Your task to perform on an android device: Open Chrome and go to settings Image 0: 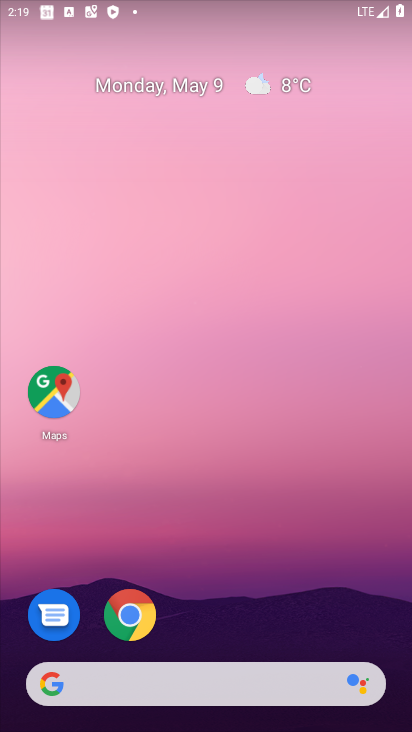
Step 0: click (126, 610)
Your task to perform on an android device: Open Chrome and go to settings Image 1: 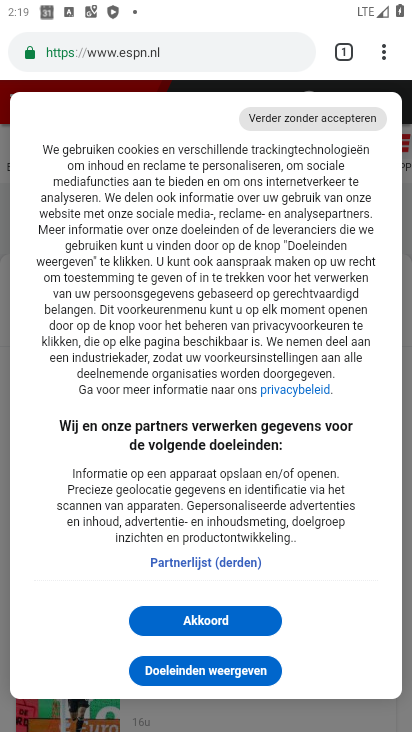
Step 1: click (380, 50)
Your task to perform on an android device: Open Chrome and go to settings Image 2: 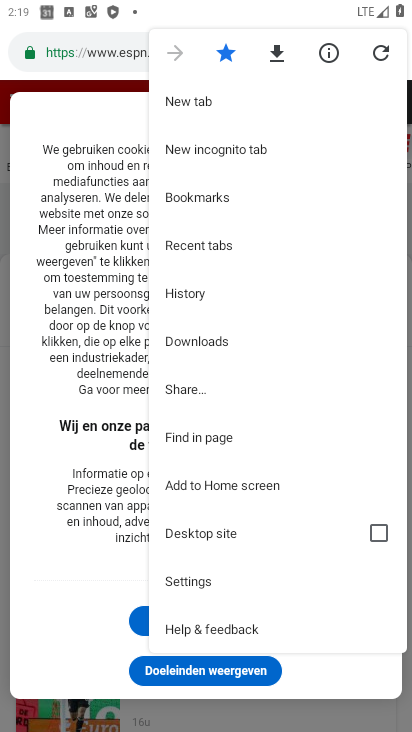
Step 2: click (170, 584)
Your task to perform on an android device: Open Chrome and go to settings Image 3: 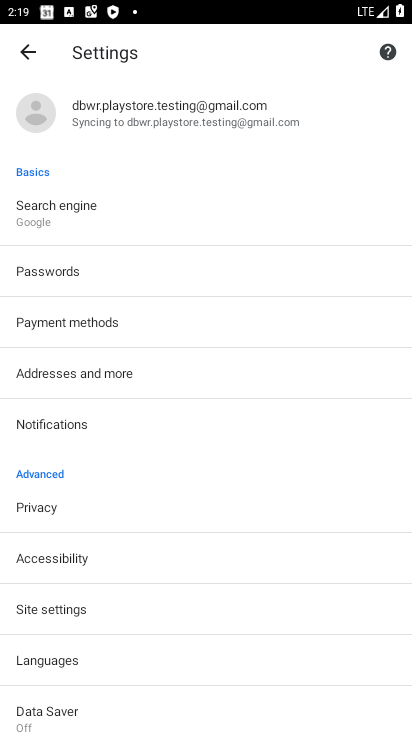
Step 3: task complete